Your task to perform on an android device: toggle notification dots Image 0: 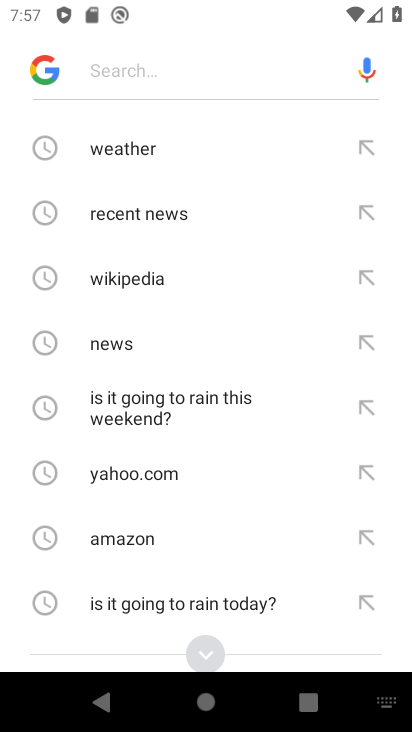
Step 0: press home button
Your task to perform on an android device: toggle notification dots Image 1: 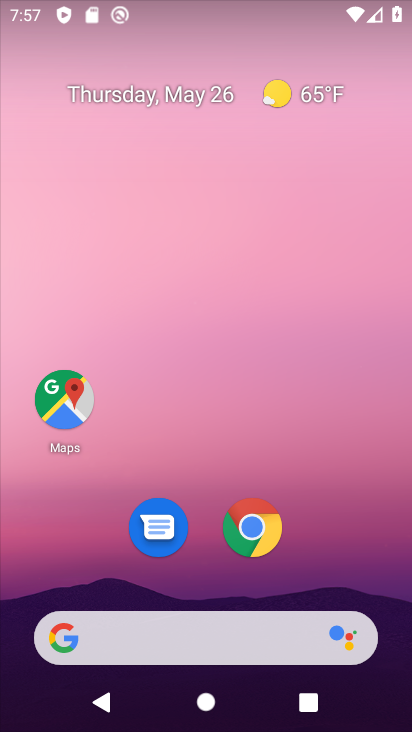
Step 1: drag from (324, 543) to (275, 3)
Your task to perform on an android device: toggle notification dots Image 2: 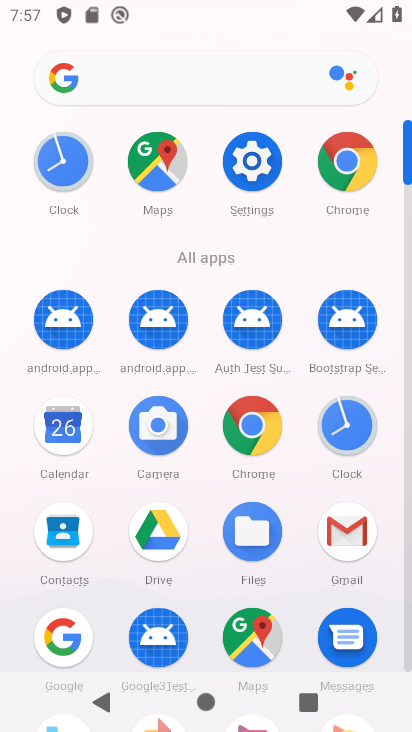
Step 2: click (265, 176)
Your task to perform on an android device: toggle notification dots Image 3: 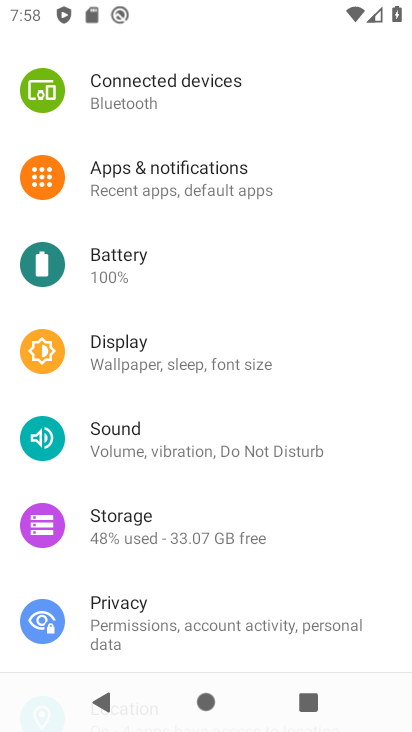
Step 3: click (242, 173)
Your task to perform on an android device: toggle notification dots Image 4: 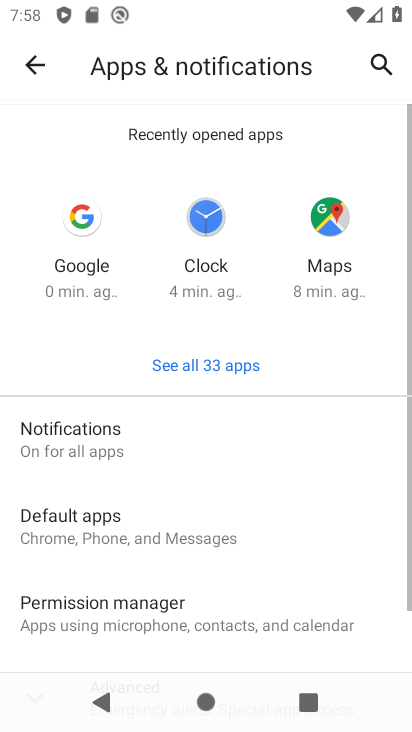
Step 4: click (54, 450)
Your task to perform on an android device: toggle notification dots Image 5: 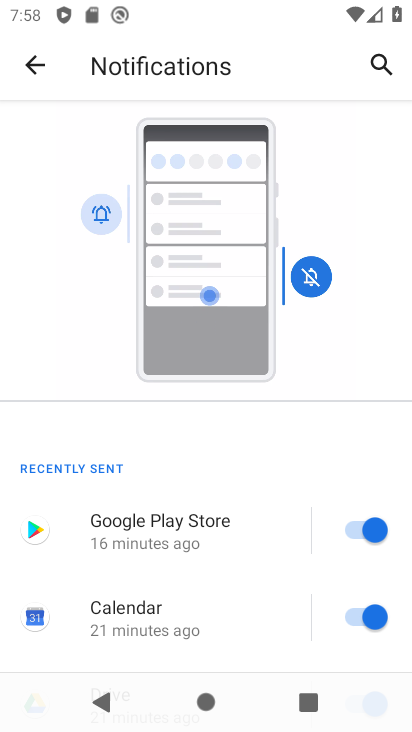
Step 5: drag from (124, 595) to (197, 242)
Your task to perform on an android device: toggle notification dots Image 6: 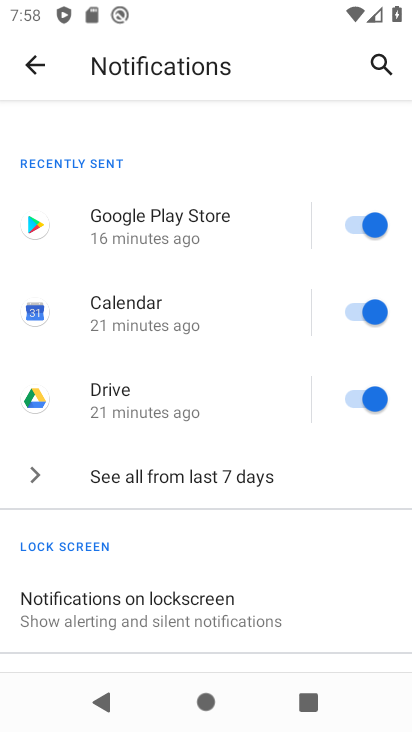
Step 6: drag from (217, 540) to (278, 150)
Your task to perform on an android device: toggle notification dots Image 7: 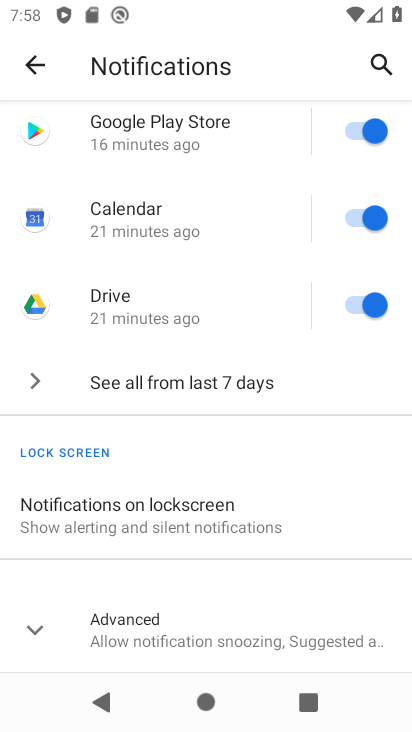
Step 7: click (232, 637)
Your task to perform on an android device: toggle notification dots Image 8: 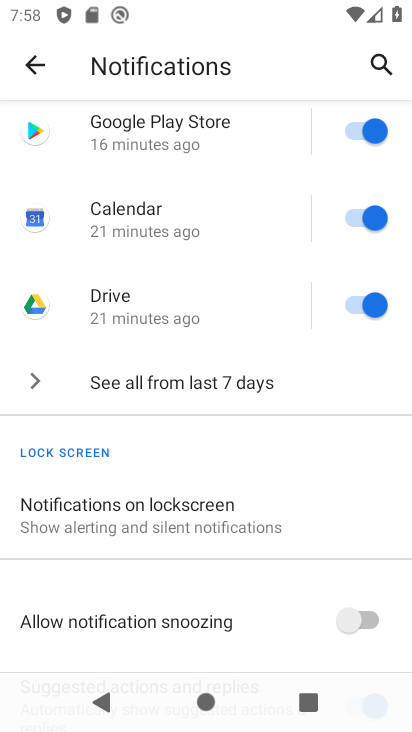
Step 8: drag from (264, 566) to (229, 209)
Your task to perform on an android device: toggle notification dots Image 9: 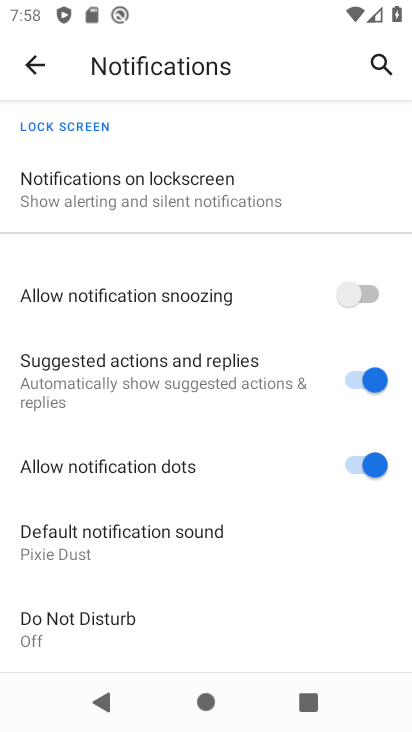
Step 9: click (364, 473)
Your task to perform on an android device: toggle notification dots Image 10: 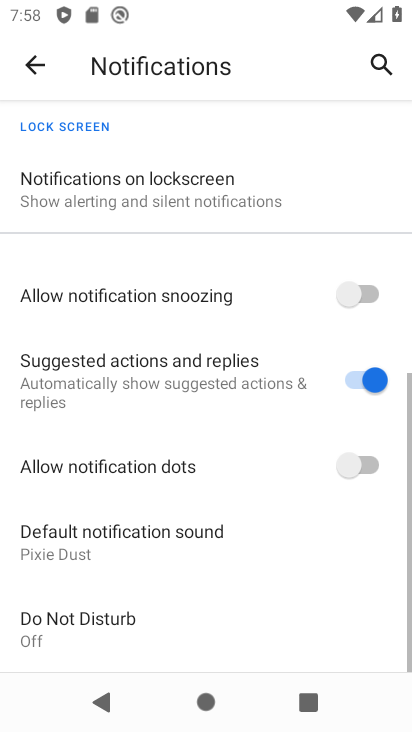
Step 10: task complete